Your task to perform on an android device: allow notifications from all sites in the chrome app Image 0: 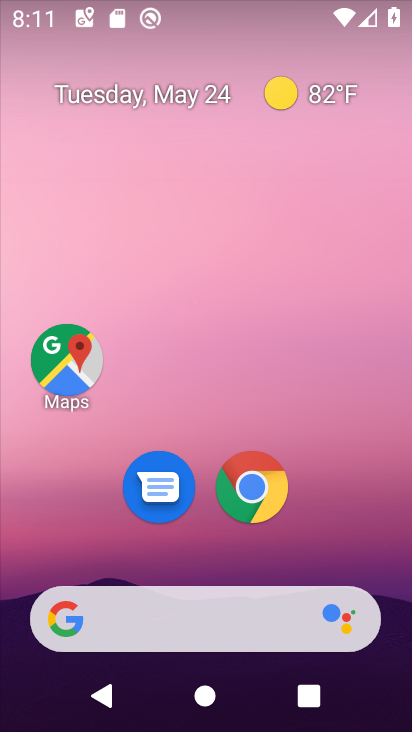
Step 0: drag from (330, 522) to (333, 251)
Your task to perform on an android device: allow notifications from all sites in the chrome app Image 1: 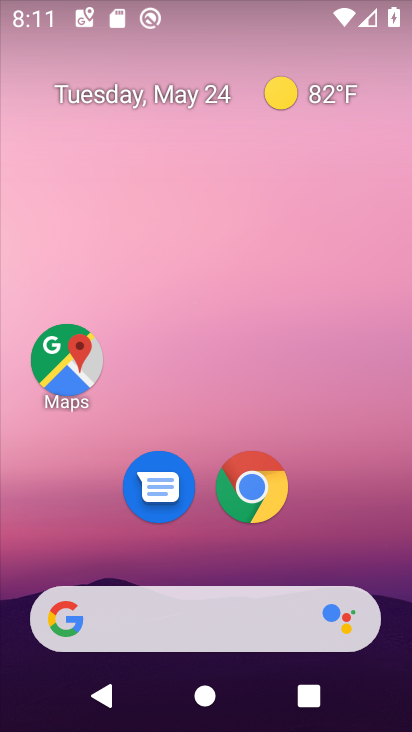
Step 1: drag from (336, 503) to (335, 178)
Your task to perform on an android device: allow notifications from all sites in the chrome app Image 2: 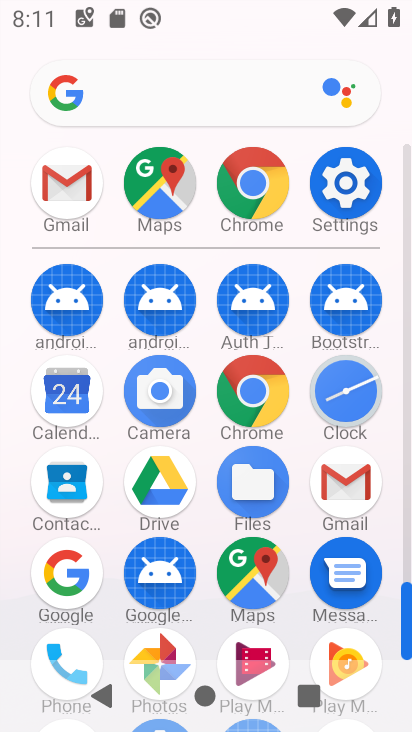
Step 2: click (265, 386)
Your task to perform on an android device: allow notifications from all sites in the chrome app Image 3: 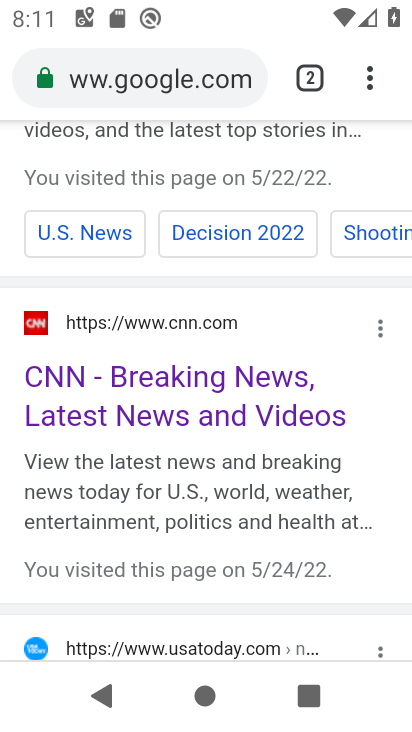
Step 3: drag from (375, 78) to (227, 553)
Your task to perform on an android device: allow notifications from all sites in the chrome app Image 4: 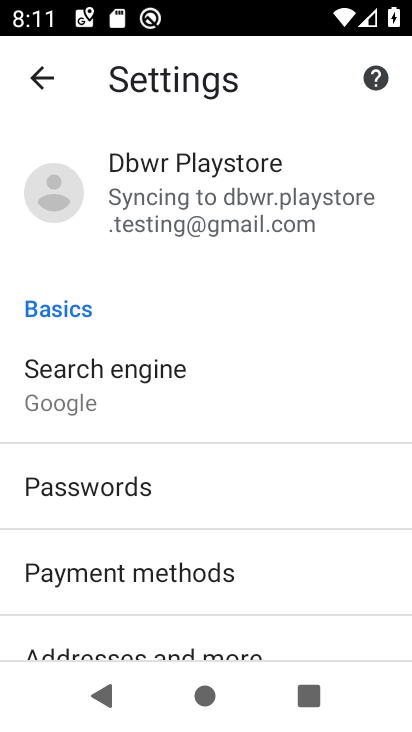
Step 4: drag from (331, 597) to (292, 314)
Your task to perform on an android device: allow notifications from all sites in the chrome app Image 5: 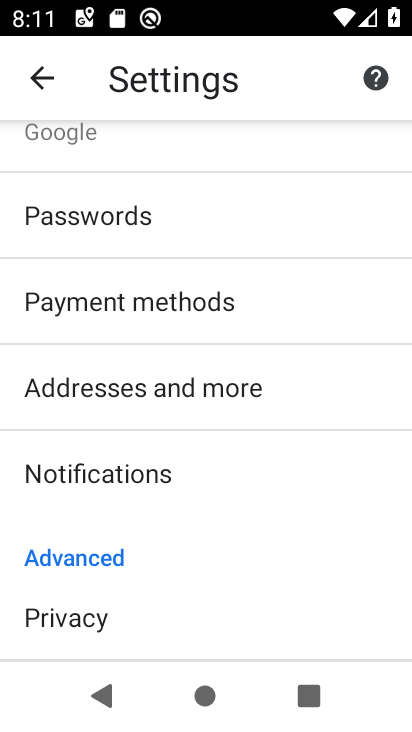
Step 5: drag from (205, 519) to (293, 177)
Your task to perform on an android device: allow notifications from all sites in the chrome app Image 6: 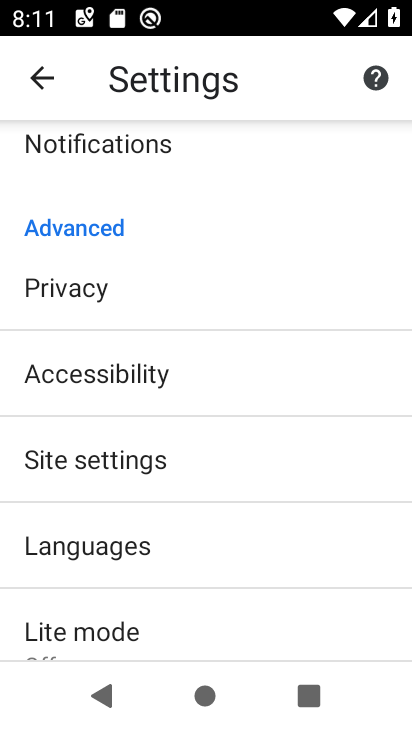
Step 6: click (259, 467)
Your task to perform on an android device: allow notifications from all sites in the chrome app Image 7: 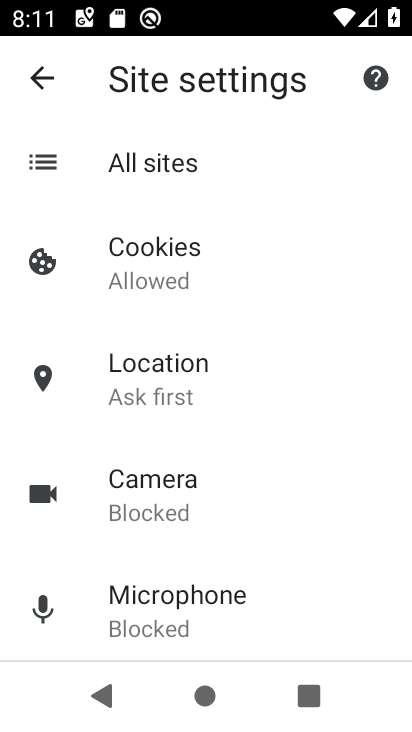
Step 7: click (239, 173)
Your task to perform on an android device: allow notifications from all sites in the chrome app Image 8: 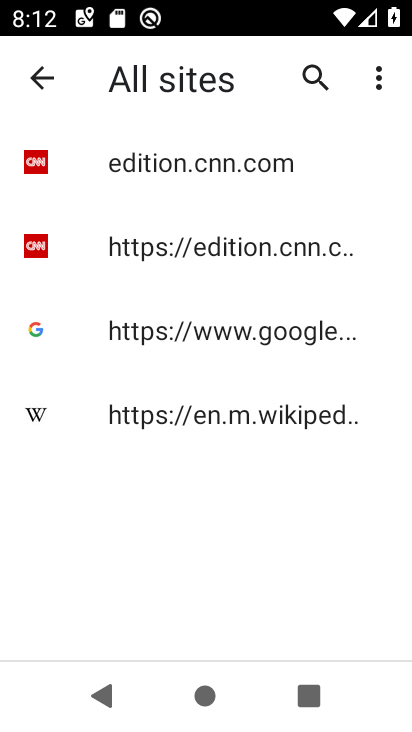
Step 8: click (215, 156)
Your task to perform on an android device: allow notifications from all sites in the chrome app Image 9: 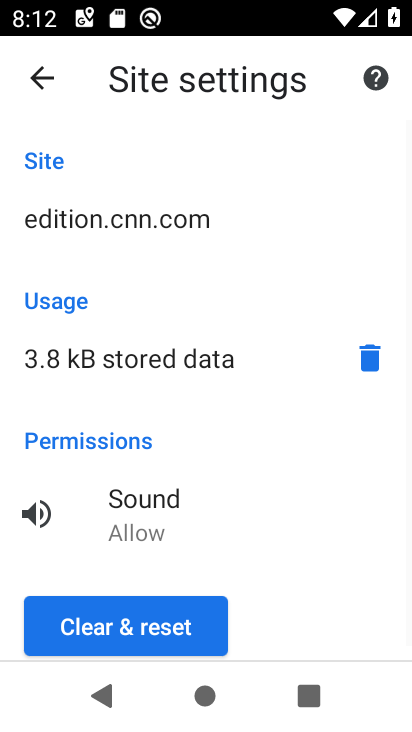
Step 9: task complete